Your task to perform on an android device: Open notification settings Image 0: 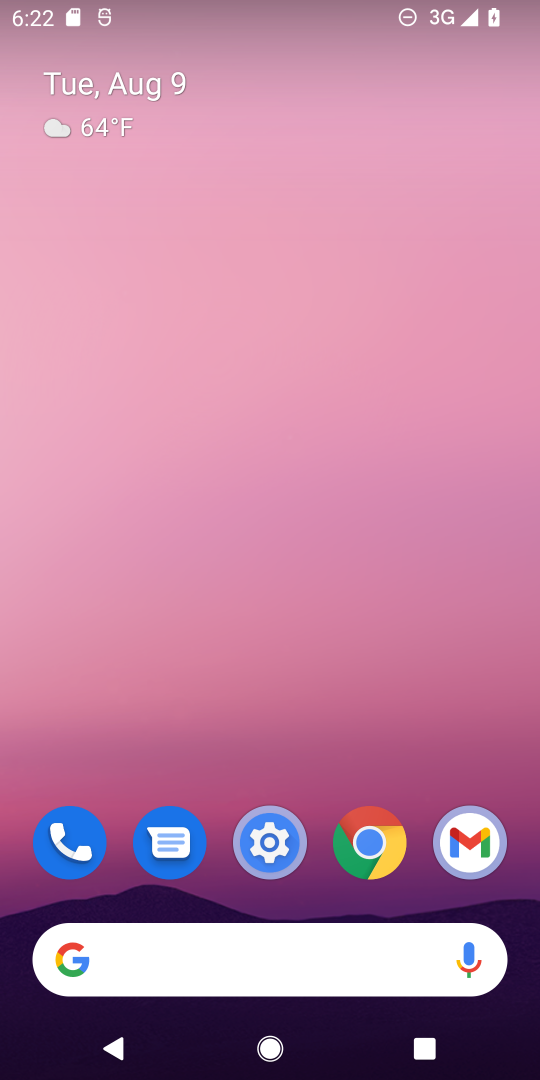
Step 0: click (3, 488)
Your task to perform on an android device: Open notification settings Image 1: 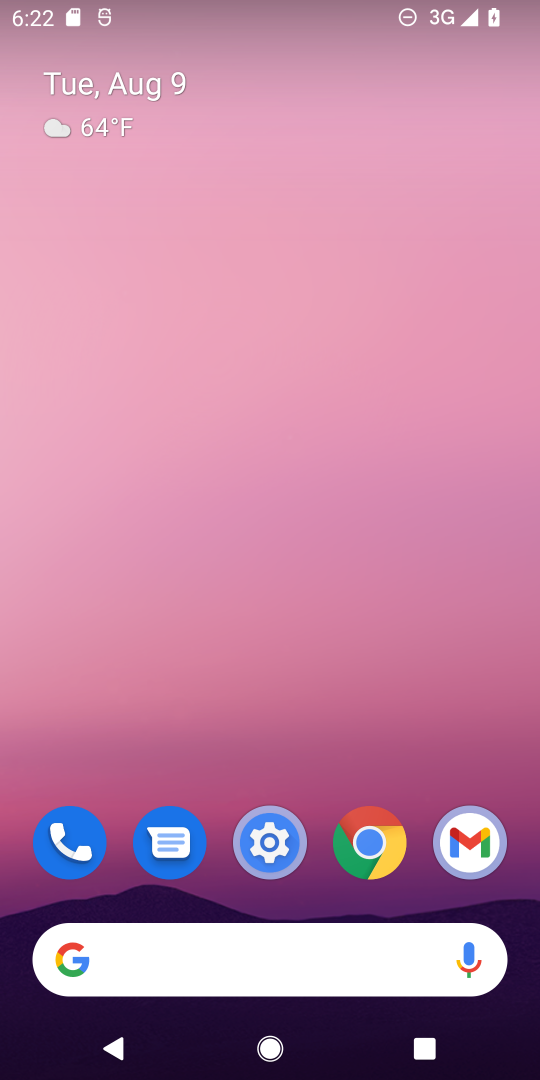
Step 1: drag from (306, 947) to (362, 95)
Your task to perform on an android device: Open notification settings Image 2: 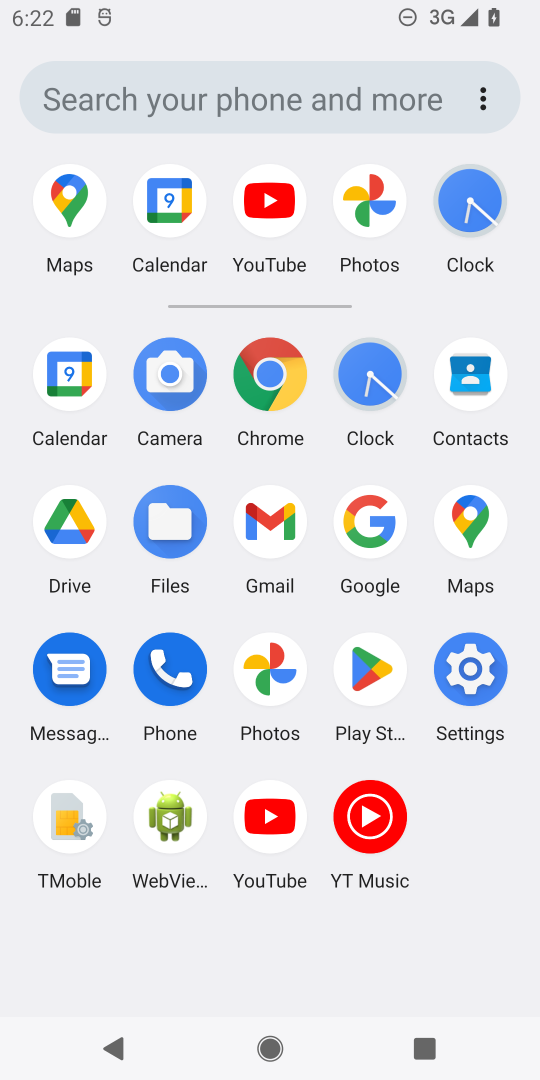
Step 2: click (483, 675)
Your task to perform on an android device: Open notification settings Image 3: 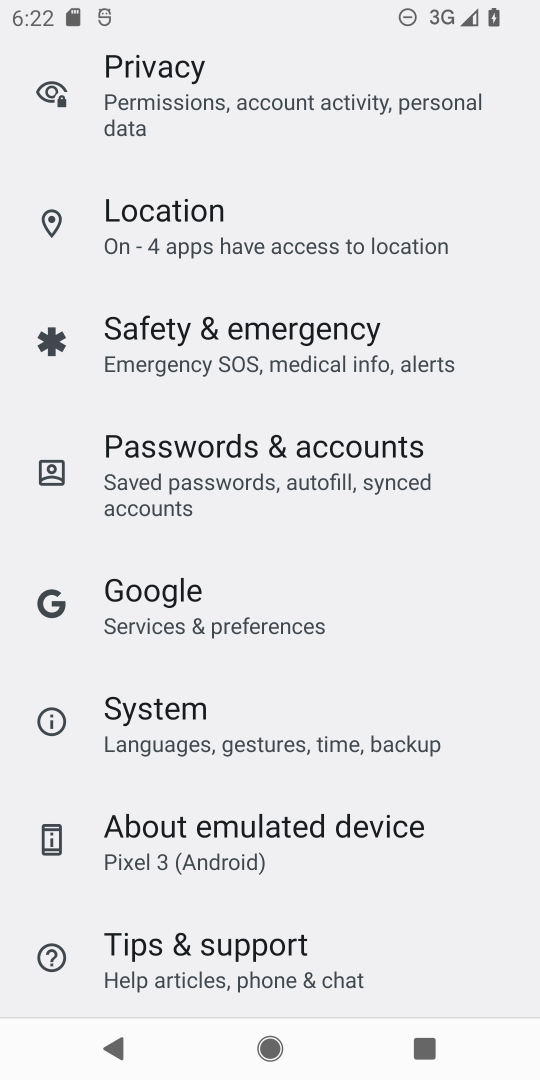
Step 3: drag from (293, 213) to (230, 897)
Your task to perform on an android device: Open notification settings Image 4: 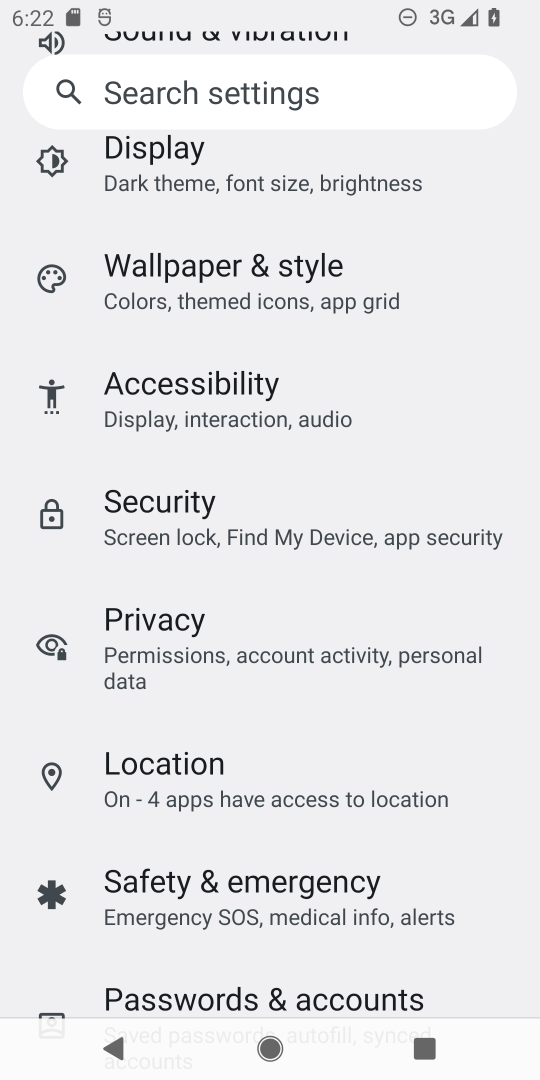
Step 4: drag from (342, 227) to (370, 875)
Your task to perform on an android device: Open notification settings Image 5: 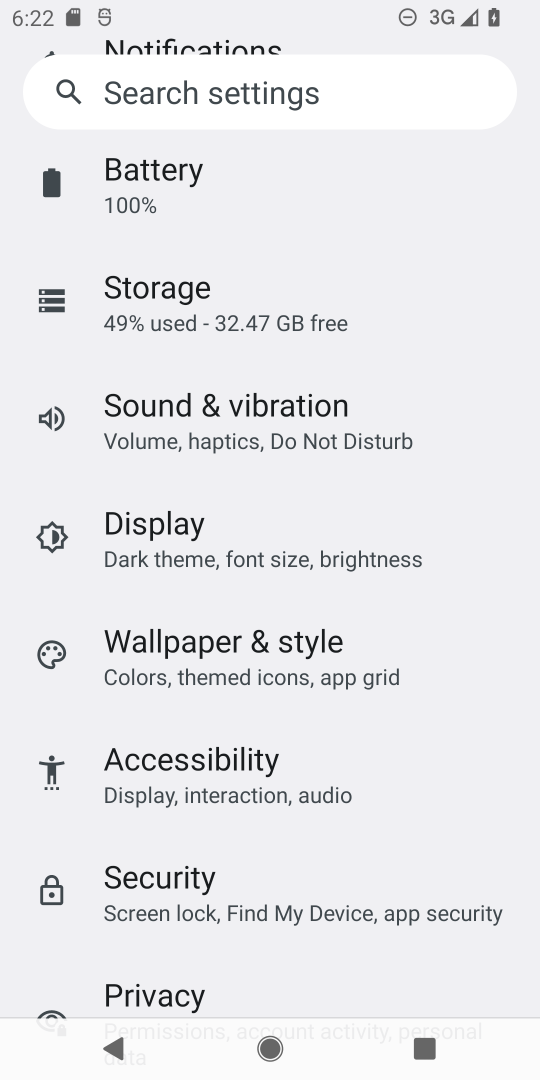
Step 5: drag from (321, 230) to (348, 843)
Your task to perform on an android device: Open notification settings Image 6: 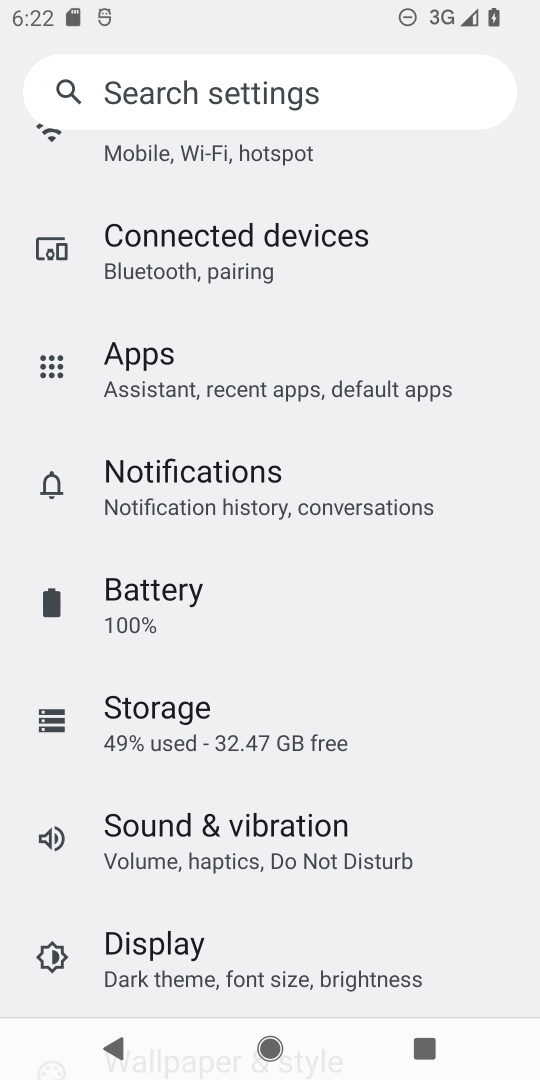
Step 6: drag from (256, 231) to (311, 935)
Your task to perform on an android device: Open notification settings Image 7: 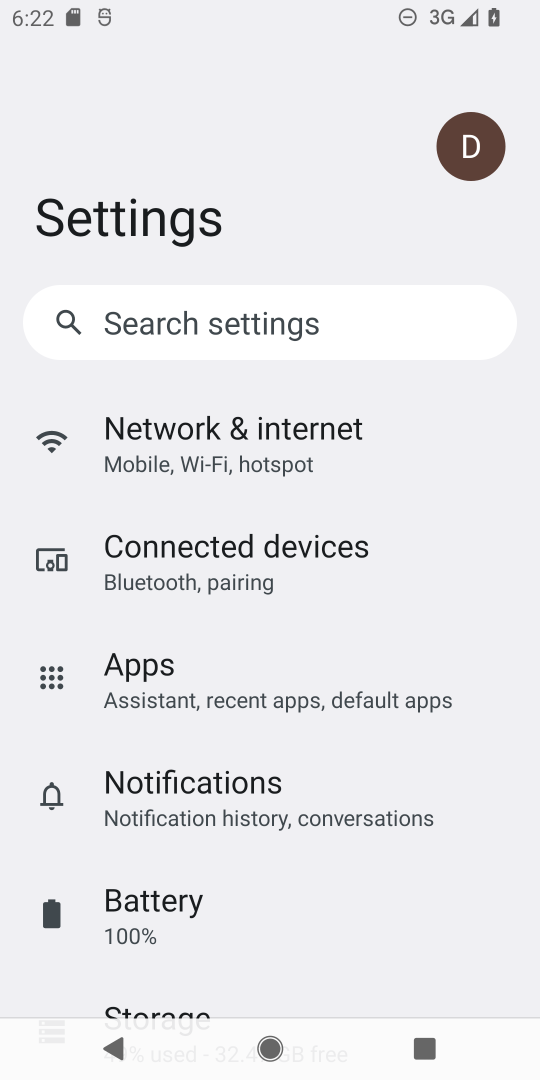
Step 7: click (153, 807)
Your task to perform on an android device: Open notification settings Image 8: 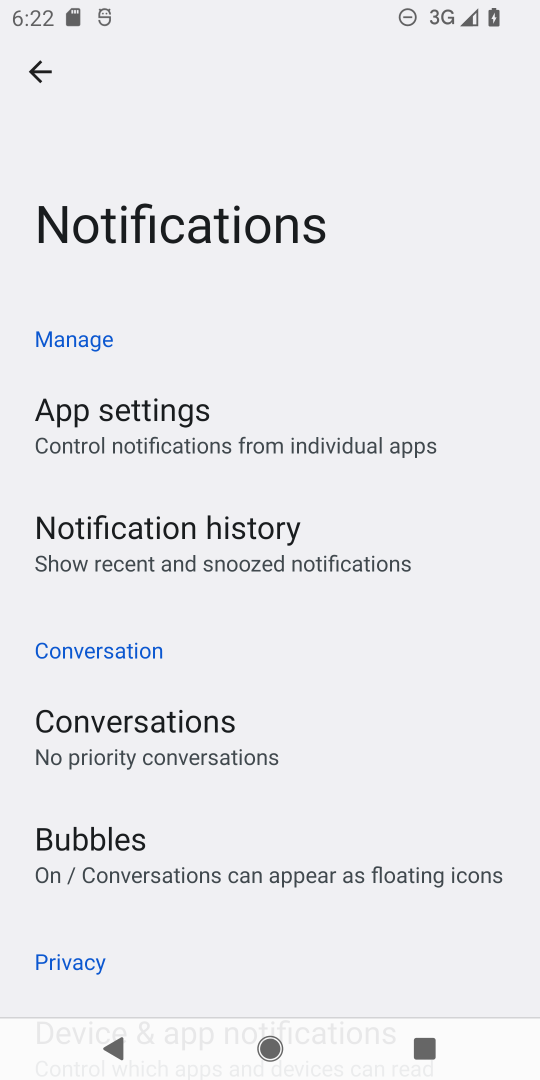
Step 8: task complete